Your task to perform on an android device: Show me productivity apps on the Play Store Image 0: 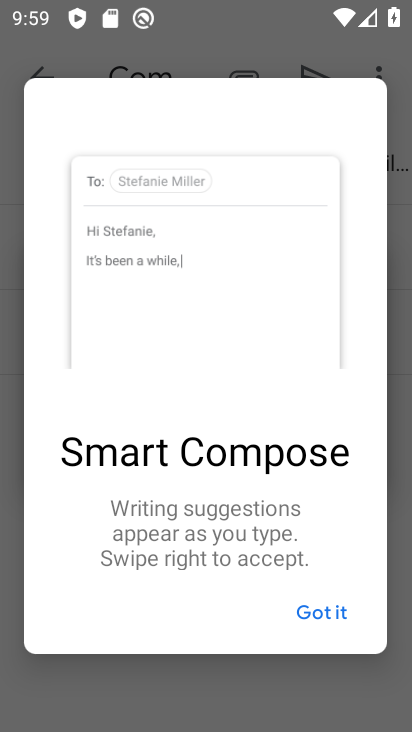
Step 0: press home button
Your task to perform on an android device: Show me productivity apps on the Play Store Image 1: 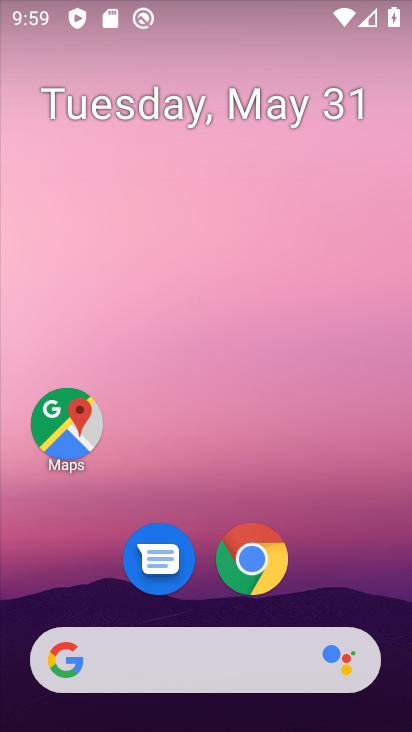
Step 1: drag from (86, 599) to (223, 120)
Your task to perform on an android device: Show me productivity apps on the Play Store Image 2: 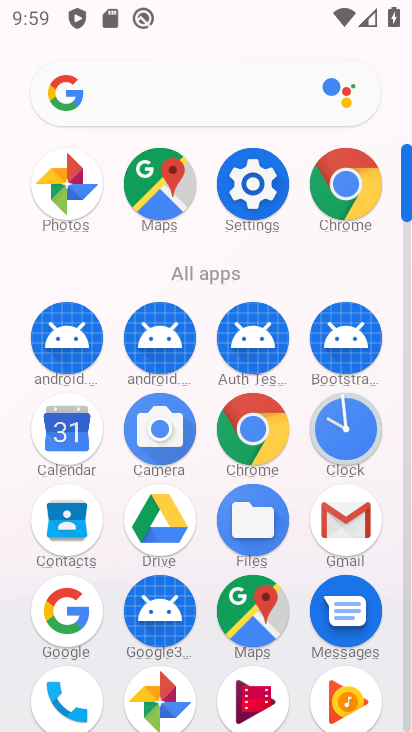
Step 2: drag from (162, 678) to (236, 348)
Your task to perform on an android device: Show me productivity apps on the Play Store Image 3: 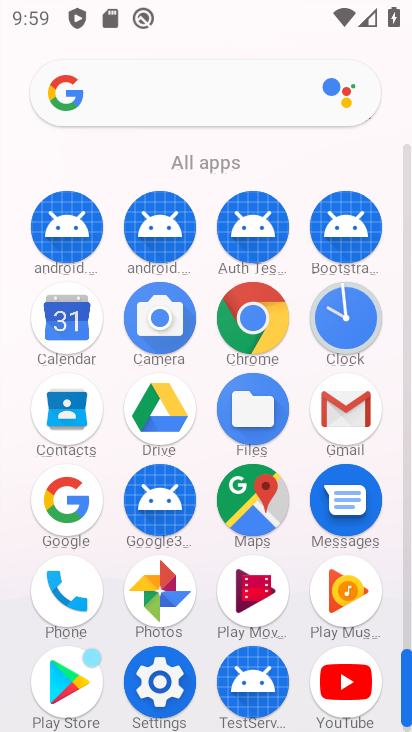
Step 3: click (59, 694)
Your task to perform on an android device: Show me productivity apps on the Play Store Image 4: 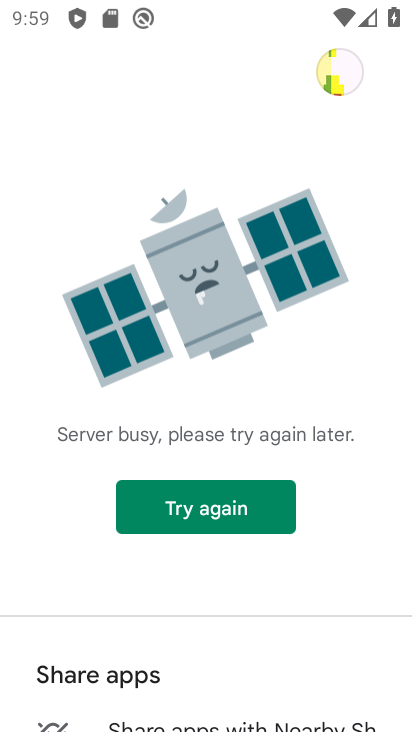
Step 4: task complete